Your task to perform on an android device: turn smart compose on in the gmail app Image 0: 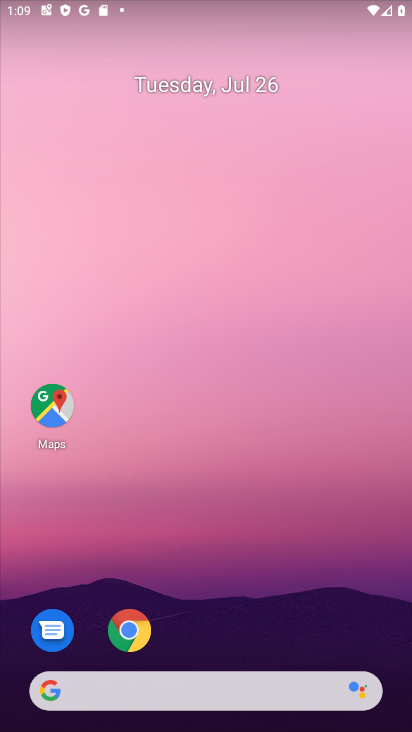
Step 0: drag from (187, 621) to (204, 172)
Your task to perform on an android device: turn smart compose on in the gmail app Image 1: 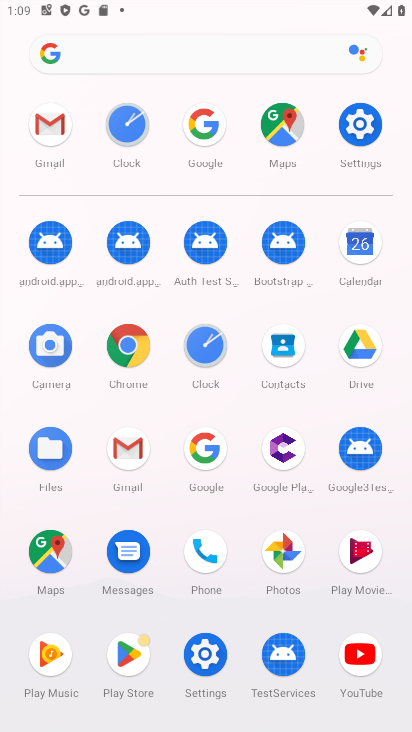
Step 1: click (50, 119)
Your task to perform on an android device: turn smart compose on in the gmail app Image 2: 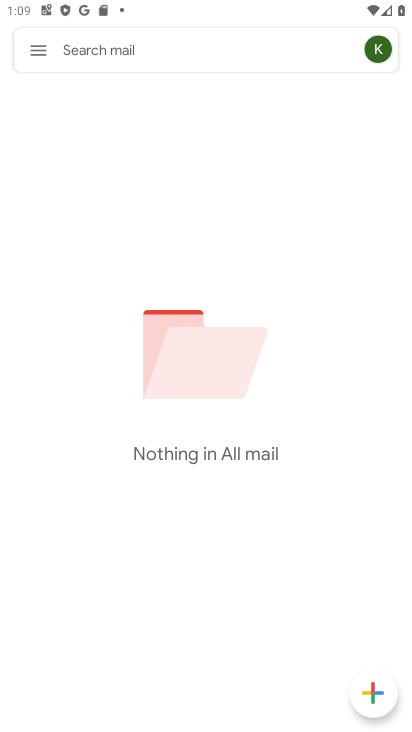
Step 2: click (35, 45)
Your task to perform on an android device: turn smart compose on in the gmail app Image 3: 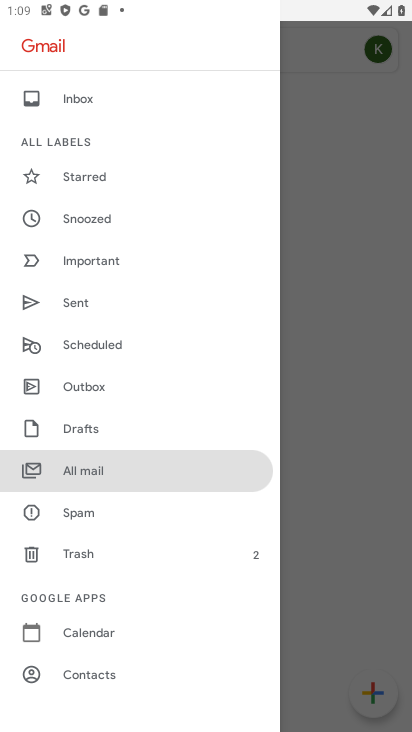
Step 3: drag from (110, 641) to (110, 215)
Your task to perform on an android device: turn smart compose on in the gmail app Image 4: 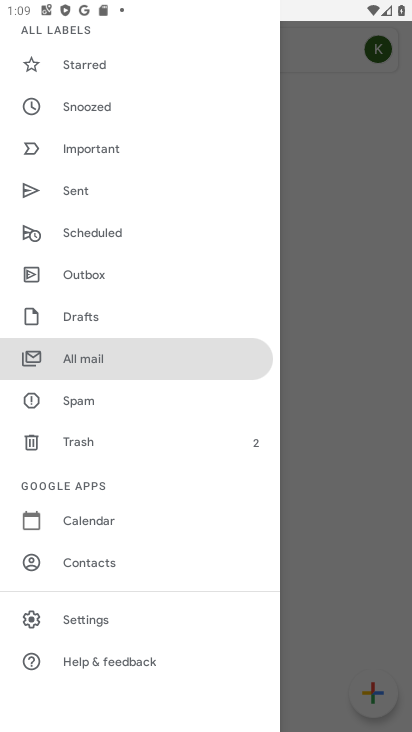
Step 4: click (71, 618)
Your task to perform on an android device: turn smart compose on in the gmail app Image 5: 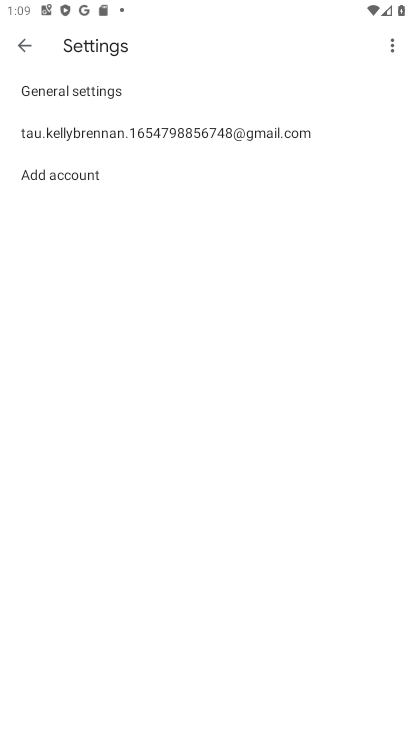
Step 5: click (199, 130)
Your task to perform on an android device: turn smart compose on in the gmail app Image 6: 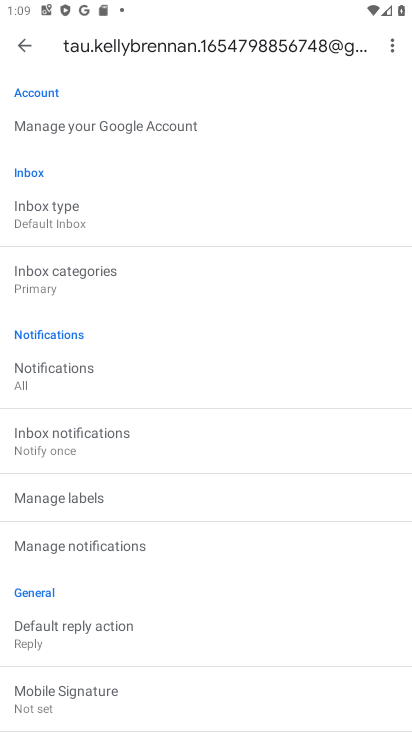
Step 6: task complete